Your task to perform on an android device: open a bookmark in the chrome app Image 0: 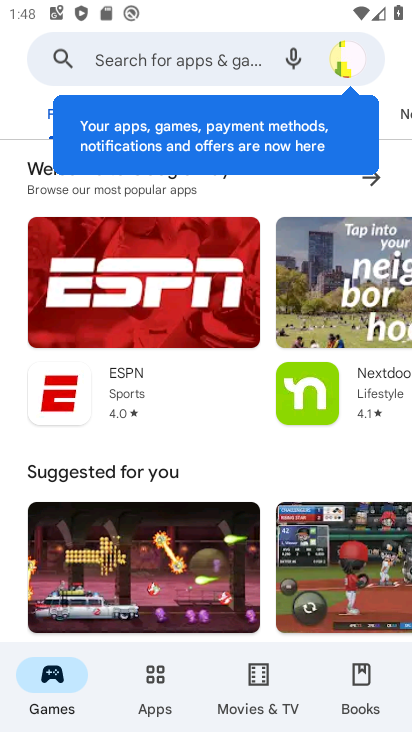
Step 0: press home button
Your task to perform on an android device: open a bookmark in the chrome app Image 1: 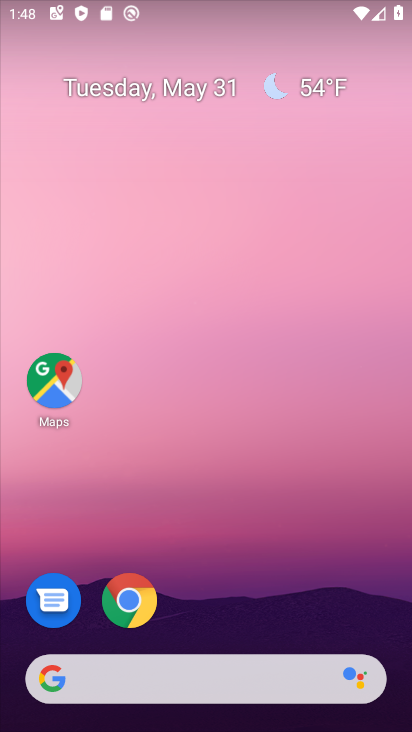
Step 1: click (145, 606)
Your task to perform on an android device: open a bookmark in the chrome app Image 2: 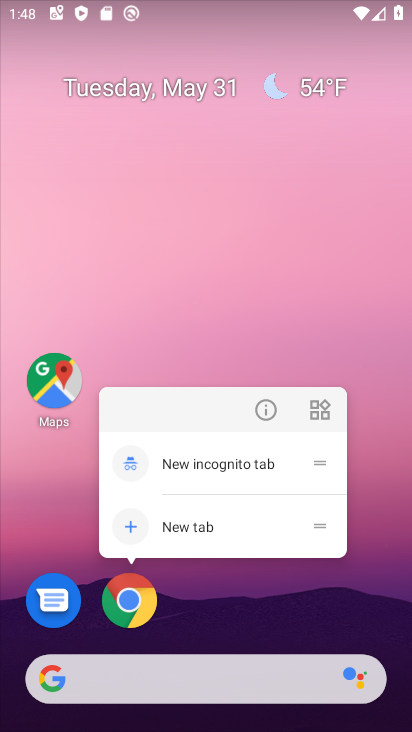
Step 2: click (133, 596)
Your task to perform on an android device: open a bookmark in the chrome app Image 3: 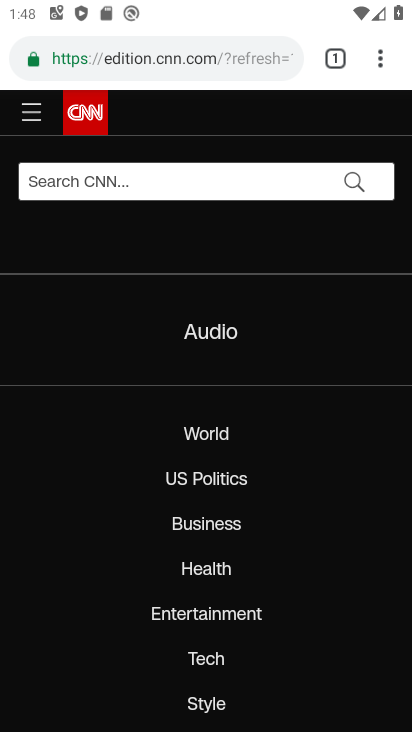
Step 3: click (379, 49)
Your task to perform on an android device: open a bookmark in the chrome app Image 4: 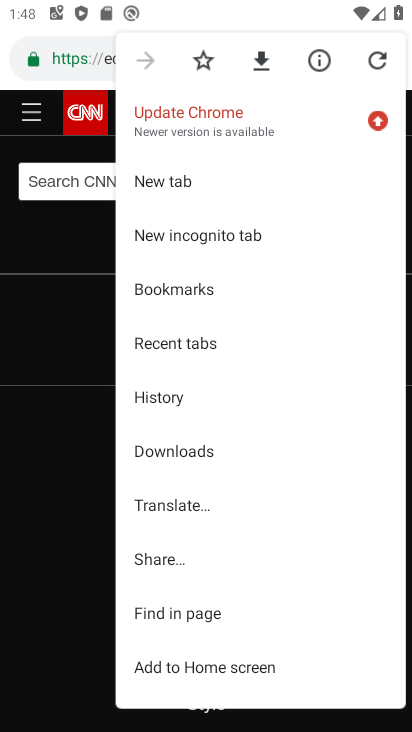
Step 4: click (180, 290)
Your task to perform on an android device: open a bookmark in the chrome app Image 5: 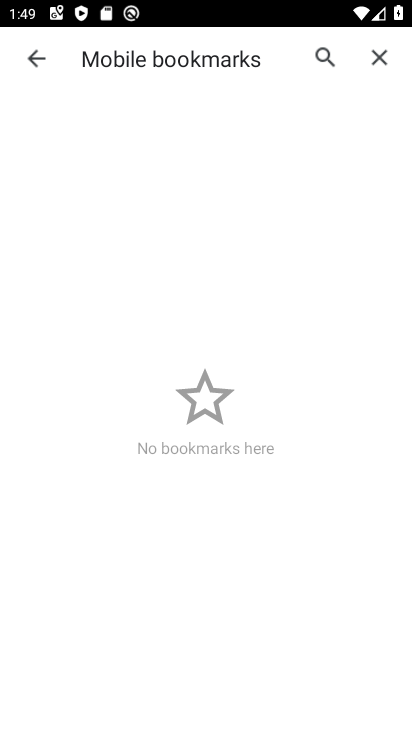
Step 5: task complete